Your task to perform on an android device: all mails in gmail Image 0: 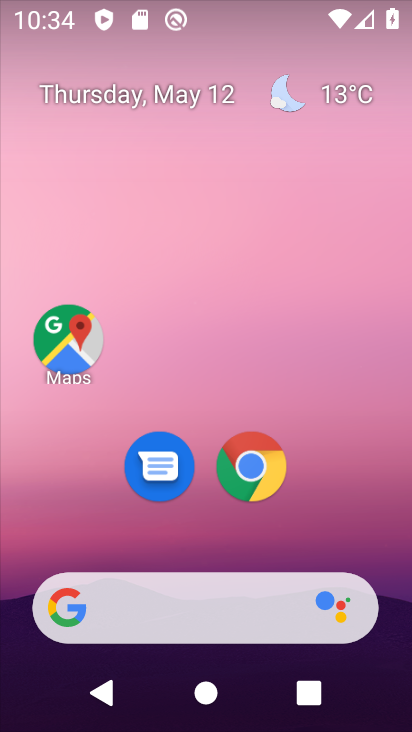
Step 0: click (332, 504)
Your task to perform on an android device: all mails in gmail Image 1: 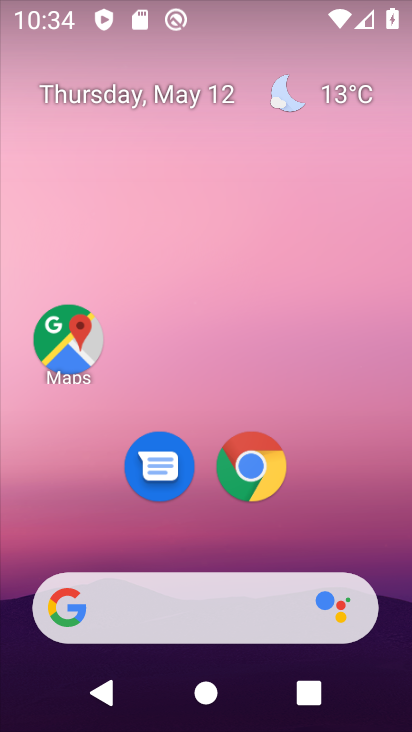
Step 1: drag from (359, 518) to (348, 137)
Your task to perform on an android device: all mails in gmail Image 2: 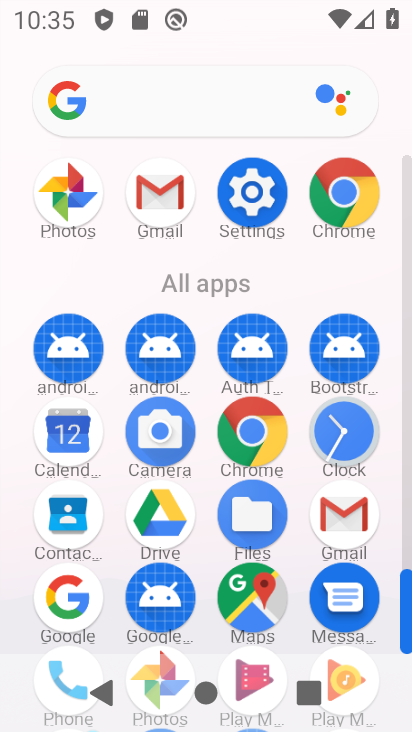
Step 2: drag from (299, 596) to (303, 282)
Your task to perform on an android device: all mails in gmail Image 3: 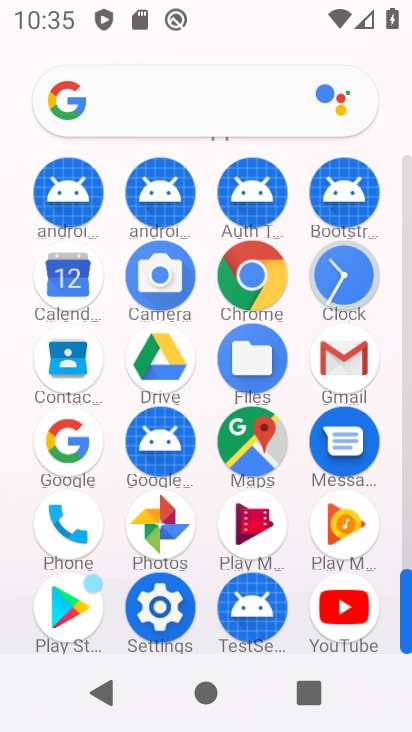
Step 3: click (355, 381)
Your task to perform on an android device: all mails in gmail Image 4: 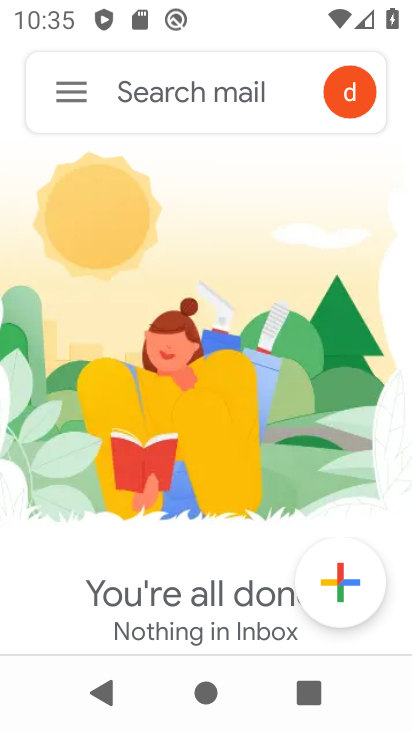
Step 4: click (71, 88)
Your task to perform on an android device: all mails in gmail Image 5: 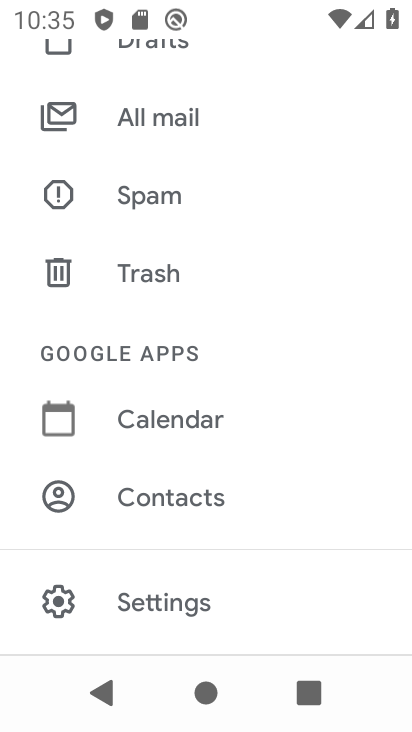
Step 5: click (188, 131)
Your task to perform on an android device: all mails in gmail Image 6: 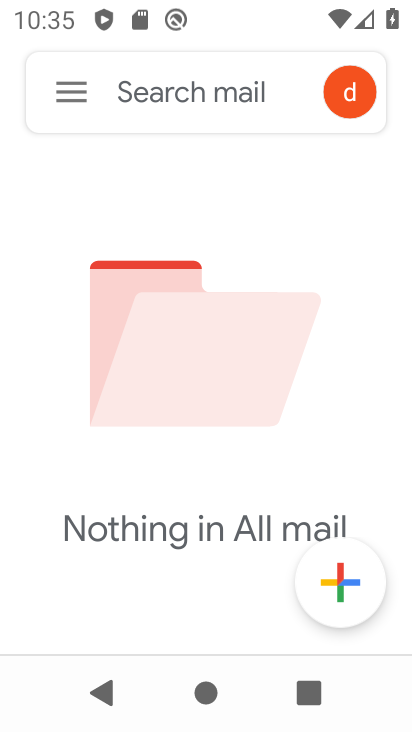
Step 6: task complete